Your task to perform on an android device: turn pop-ups on in chrome Image 0: 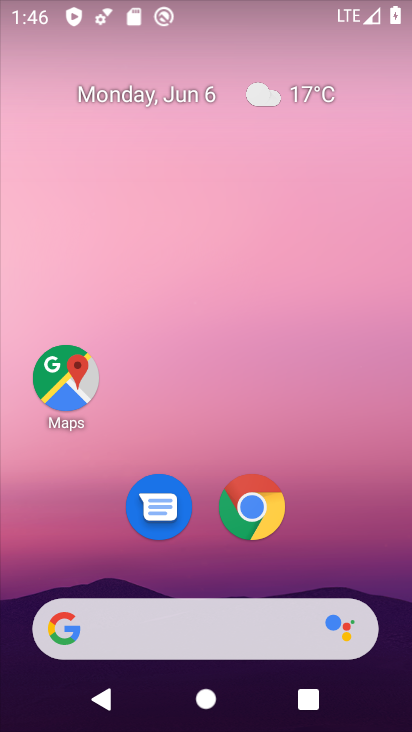
Step 0: click (275, 501)
Your task to perform on an android device: turn pop-ups on in chrome Image 1: 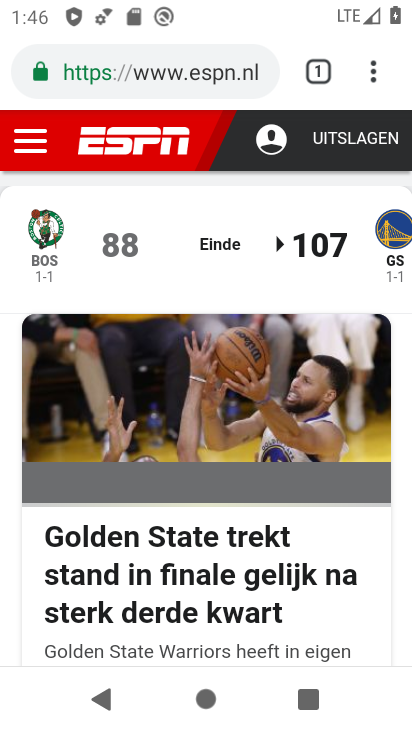
Step 1: click (371, 82)
Your task to perform on an android device: turn pop-ups on in chrome Image 2: 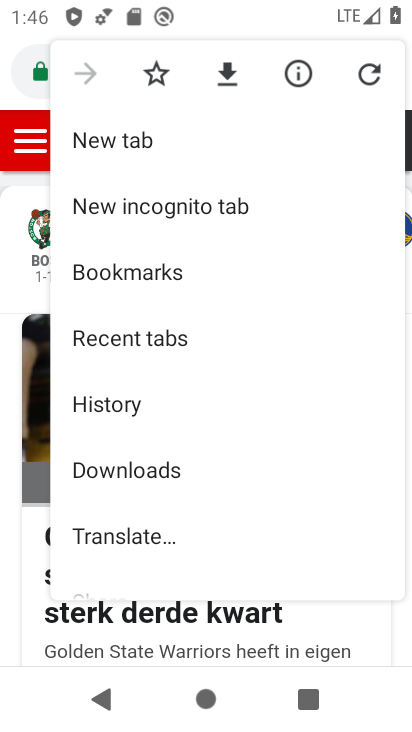
Step 2: drag from (181, 579) to (175, 118)
Your task to perform on an android device: turn pop-ups on in chrome Image 3: 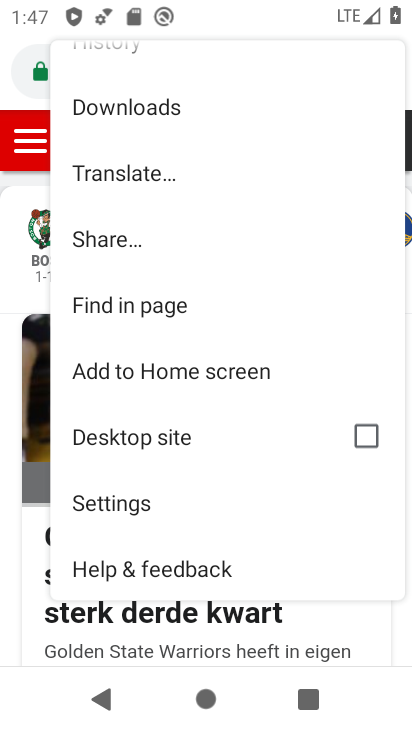
Step 3: click (156, 520)
Your task to perform on an android device: turn pop-ups on in chrome Image 4: 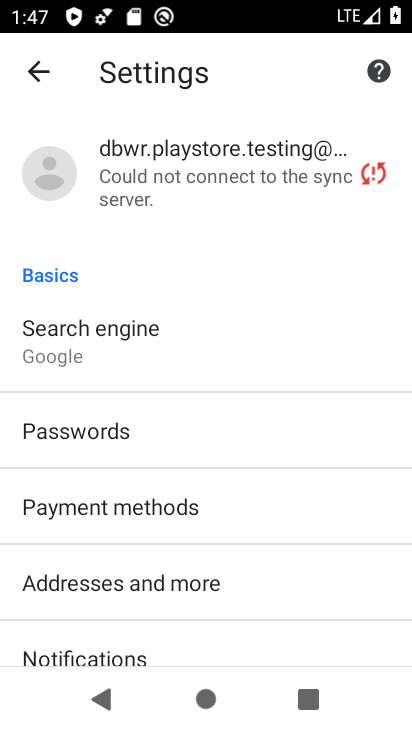
Step 4: drag from (201, 636) to (177, 292)
Your task to perform on an android device: turn pop-ups on in chrome Image 5: 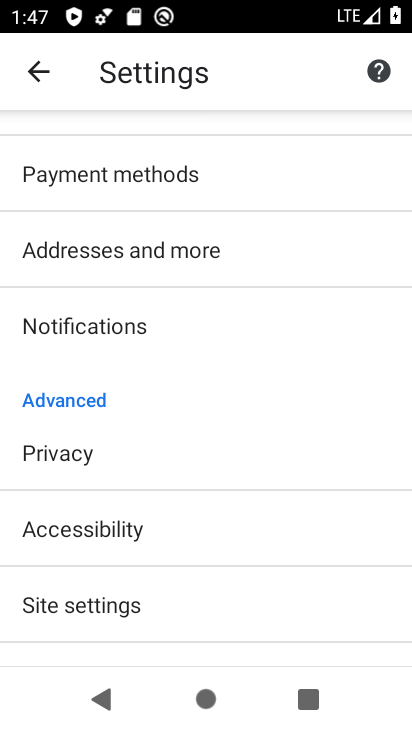
Step 5: drag from (207, 574) to (178, 327)
Your task to perform on an android device: turn pop-ups on in chrome Image 6: 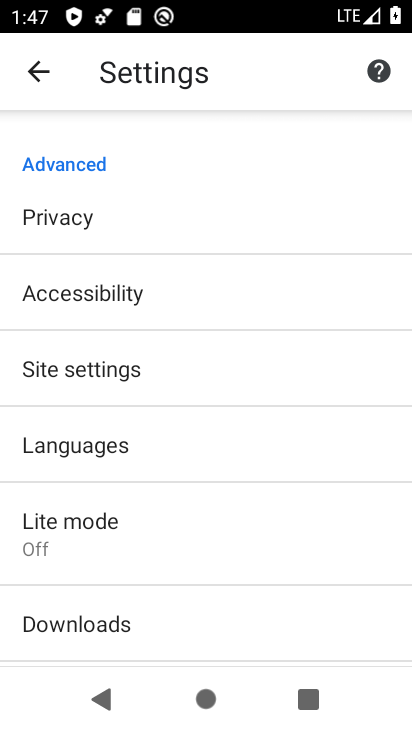
Step 6: click (146, 374)
Your task to perform on an android device: turn pop-ups on in chrome Image 7: 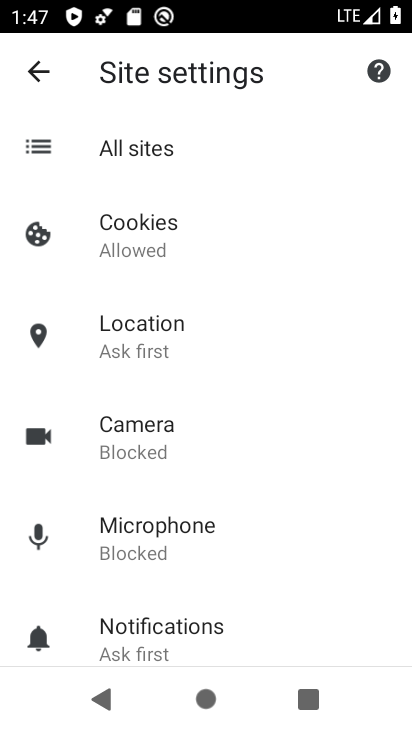
Step 7: drag from (162, 609) to (147, 173)
Your task to perform on an android device: turn pop-ups on in chrome Image 8: 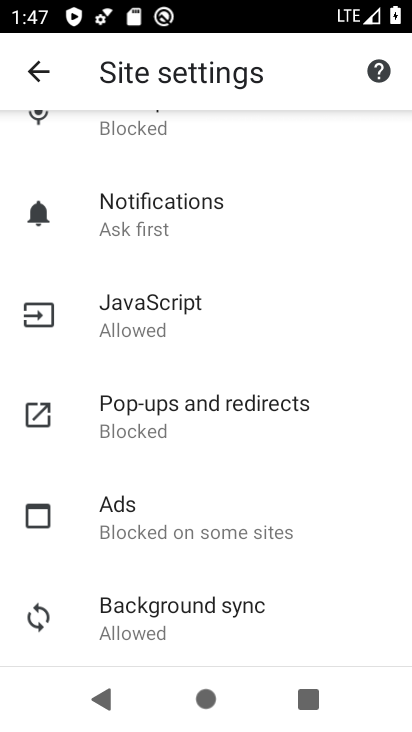
Step 8: click (235, 443)
Your task to perform on an android device: turn pop-ups on in chrome Image 9: 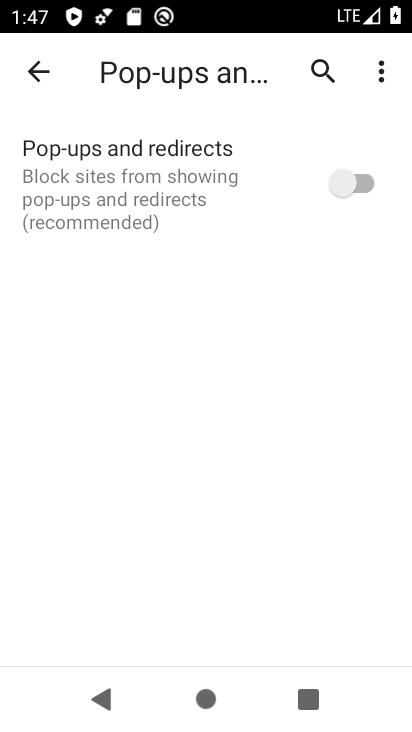
Step 9: click (366, 213)
Your task to perform on an android device: turn pop-ups on in chrome Image 10: 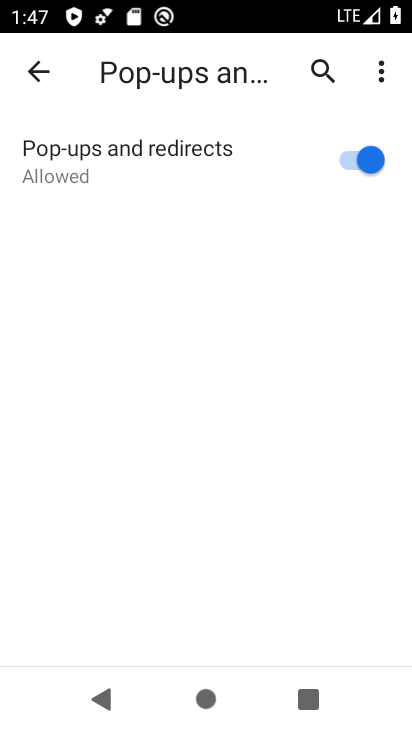
Step 10: task complete